Your task to perform on an android device: Show me popular videos on Youtube Image 0: 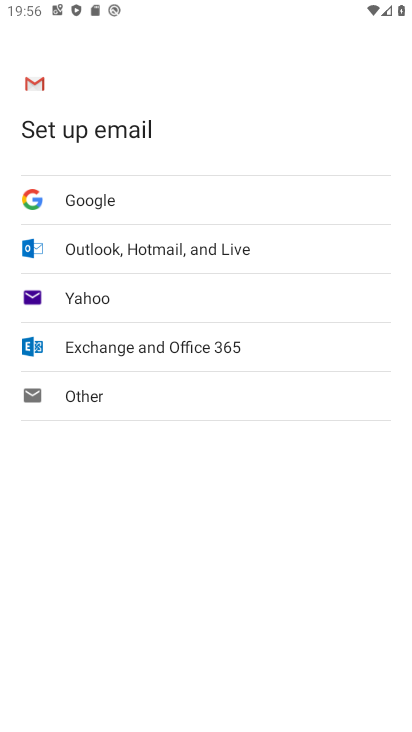
Step 0: press back button
Your task to perform on an android device: Show me popular videos on Youtube Image 1: 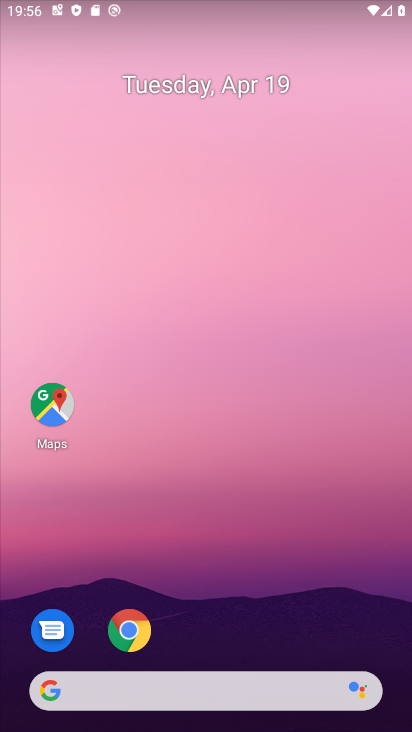
Step 1: drag from (281, 376) to (265, 13)
Your task to perform on an android device: Show me popular videos on Youtube Image 2: 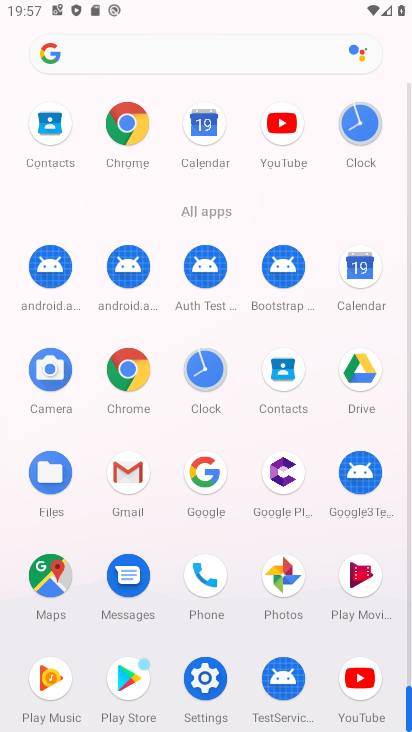
Step 2: drag from (3, 542) to (13, 309)
Your task to perform on an android device: Show me popular videos on Youtube Image 3: 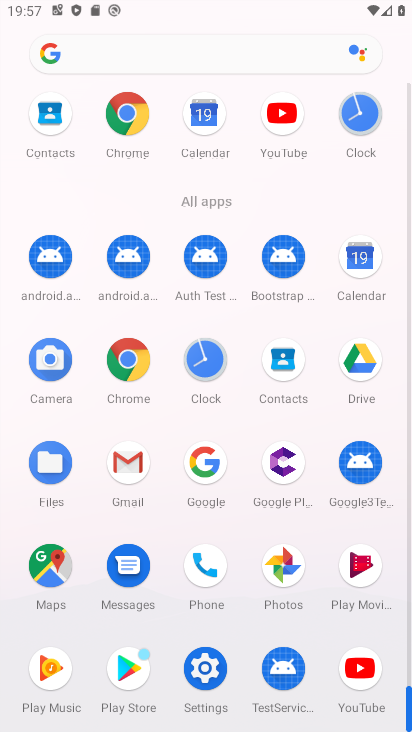
Step 3: click (358, 666)
Your task to perform on an android device: Show me popular videos on Youtube Image 4: 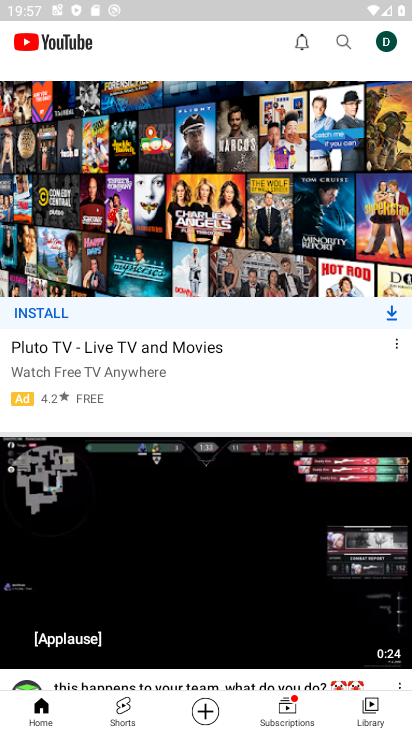
Step 4: drag from (223, 457) to (238, 178)
Your task to perform on an android device: Show me popular videos on Youtube Image 5: 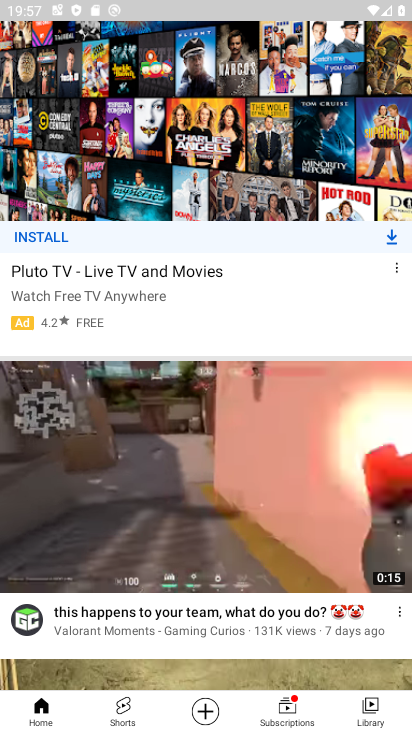
Step 5: drag from (222, 523) to (239, 274)
Your task to perform on an android device: Show me popular videos on Youtube Image 6: 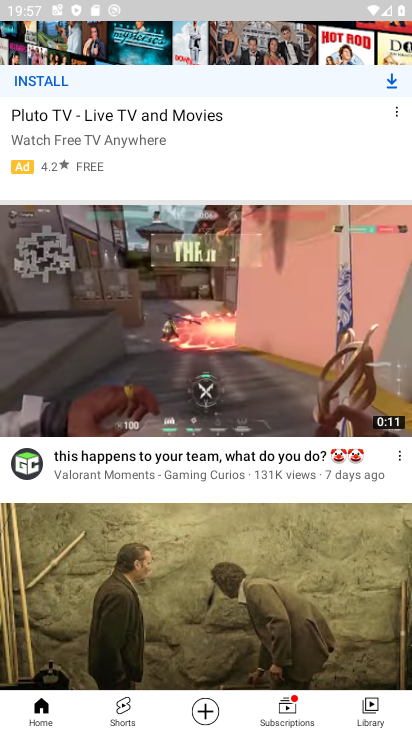
Step 6: drag from (199, 584) to (210, 282)
Your task to perform on an android device: Show me popular videos on Youtube Image 7: 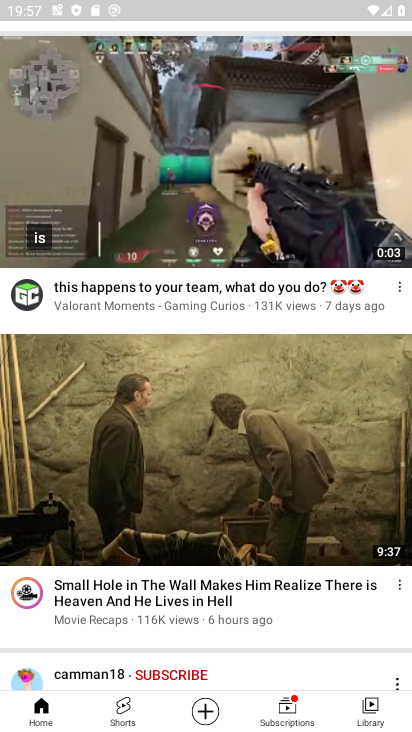
Step 7: drag from (131, 218) to (137, 433)
Your task to perform on an android device: Show me popular videos on Youtube Image 8: 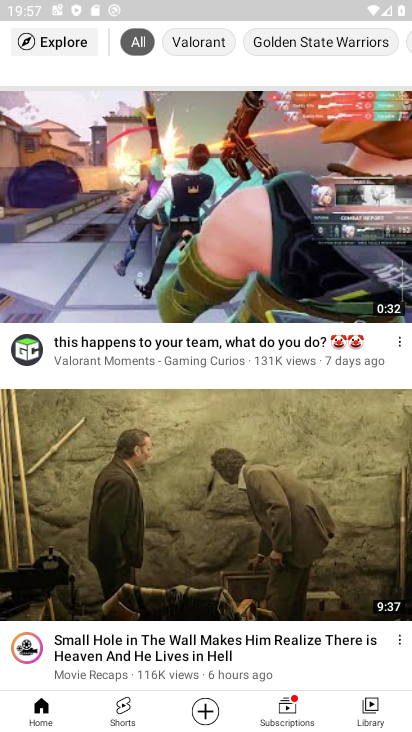
Step 8: drag from (159, 457) to (163, 524)
Your task to perform on an android device: Show me popular videos on Youtube Image 9: 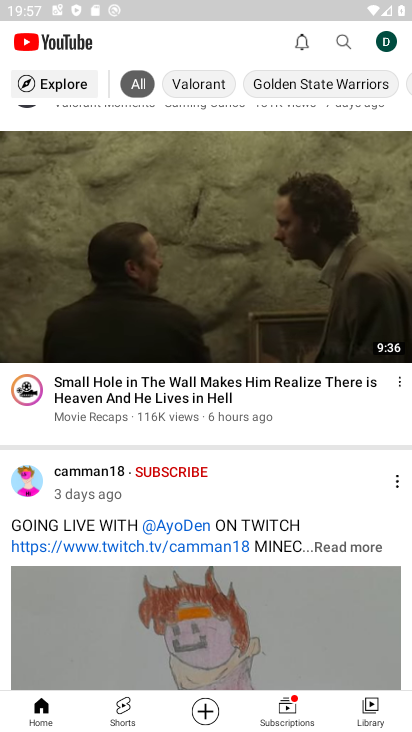
Step 9: click (50, 710)
Your task to perform on an android device: Show me popular videos on Youtube Image 10: 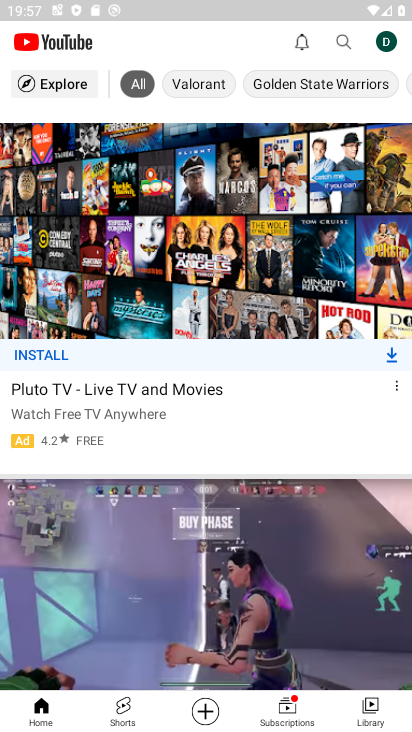
Step 10: click (67, 89)
Your task to perform on an android device: Show me popular videos on Youtube Image 11: 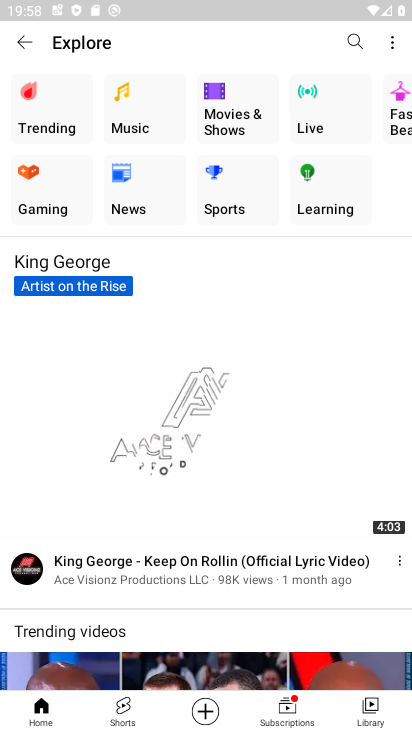
Step 11: click (47, 121)
Your task to perform on an android device: Show me popular videos on Youtube Image 12: 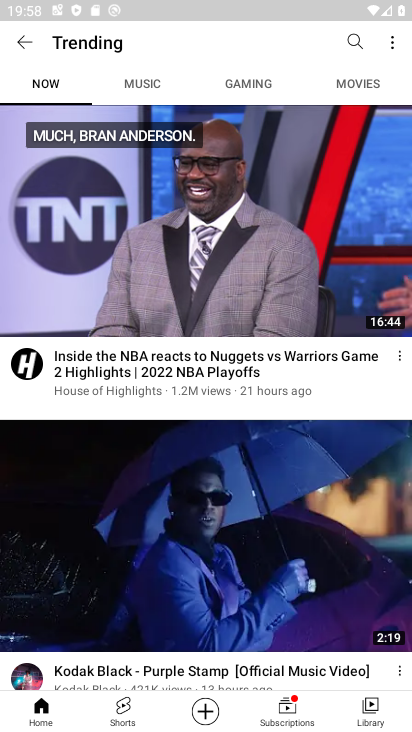
Step 12: task complete